Your task to perform on an android device: snooze an email in the gmail app Image 0: 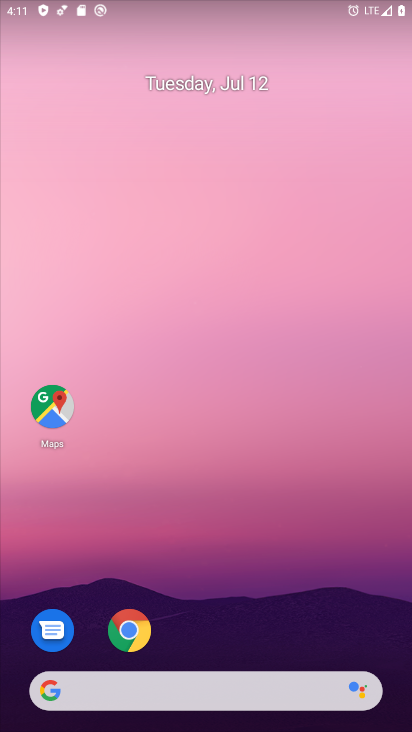
Step 0: click (207, 93)
Your task to perform on an android device: snooze an email in the gmail app Image 1: 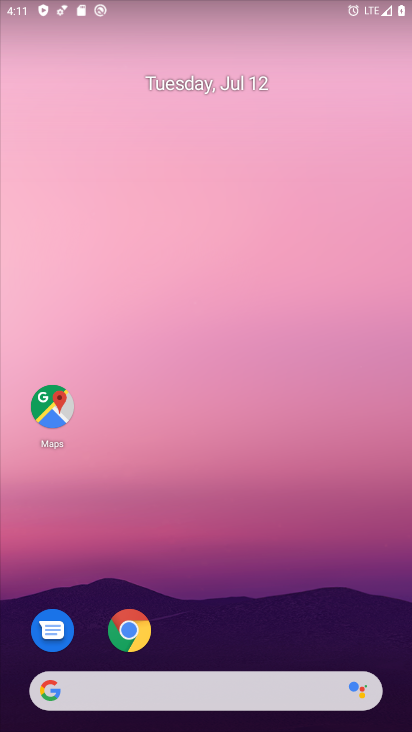
Step 1: drag from (258, 652) to (199, 38)
Your task to perform on an android device: snooze an email in the gmail app Image 2: 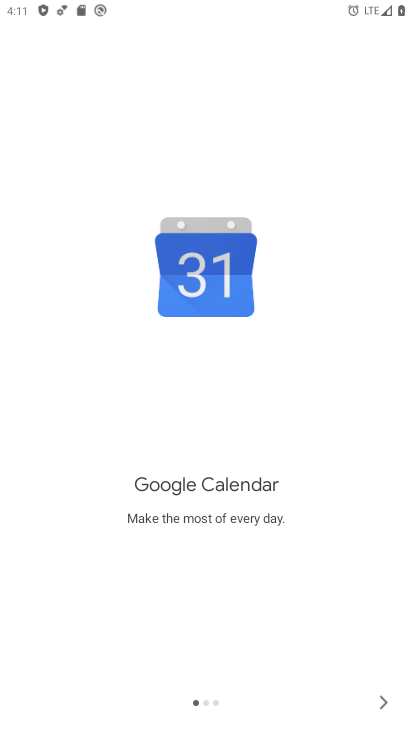
Step 2: click (383, 691)
Your task to perform on an android device: snooze an email in the gmail app Image 3: 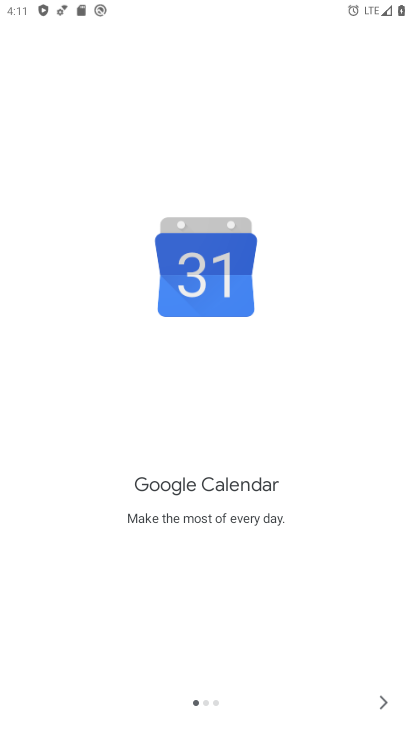
Step 3: click (383, 691)
Your task to perform on an android device: snooze an email in the gmail app Image 4: 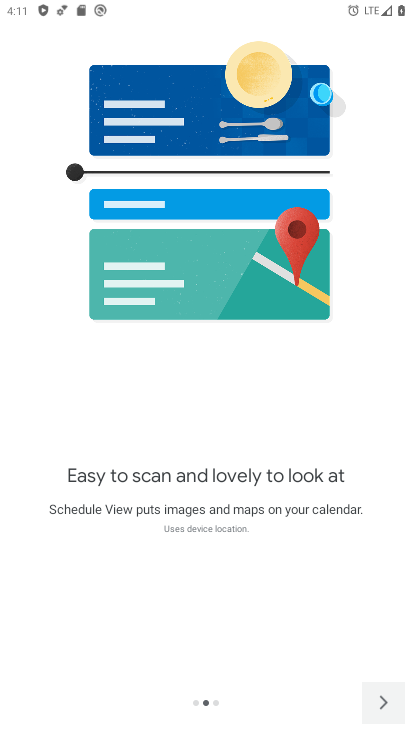
Step 4: click (383, 691)
Your task to perform on an android device: snooze an email in the gmail app Image 5: 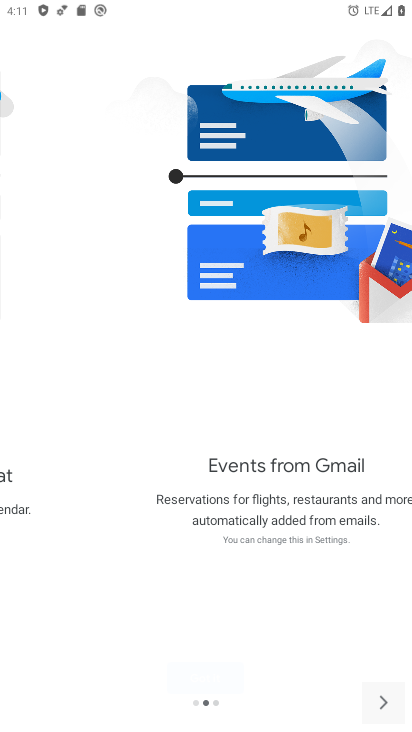
Step 5: click (383, 691)
Your task to perform on an android device: snooze an email in the gmail app Image 6: 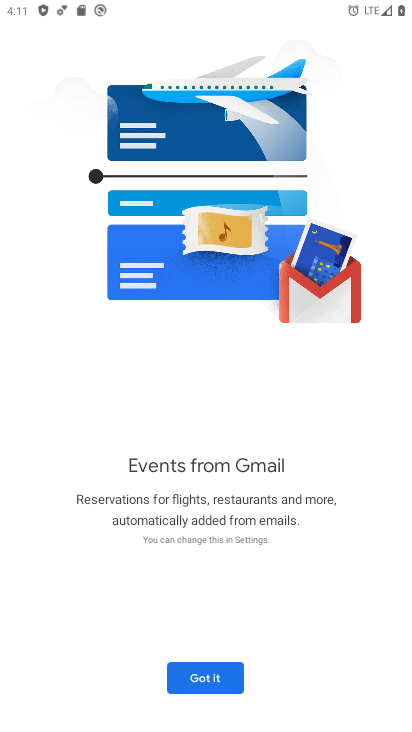
Step 6: click (204, 677)
Your task to perform on an android device: snooze an email in the gmail app Image 7: 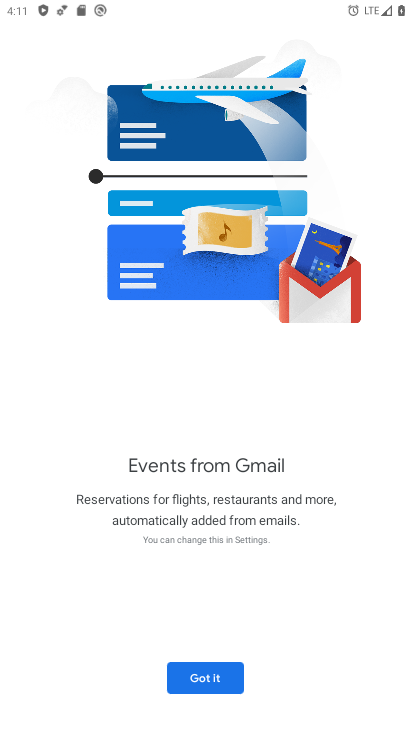
Step 7: click (204, 676)
Your task to perform on an android device: snooze an email in the gmail app Image 8: 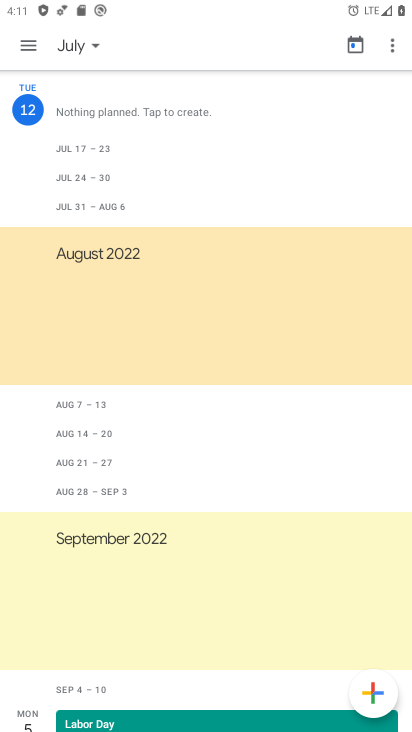
Step 8: press back button
Your task to perform on an android device: snooze an email in the gmail app Image 9: 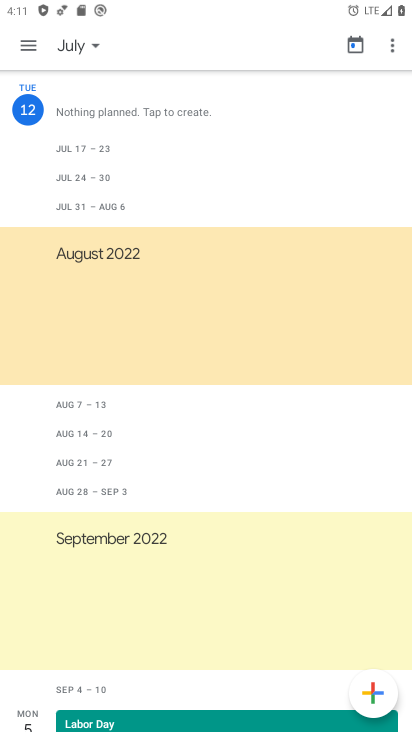
Step 9: press back button
Your task to perform on an android device: snooze an email in the gmail app Image 10: 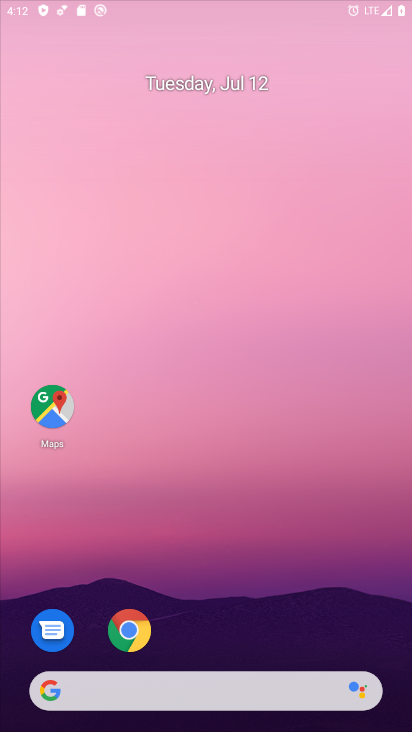
Step 10: press back button
Your task to perform on an android device: snooze an email in the gmail app Image 11: 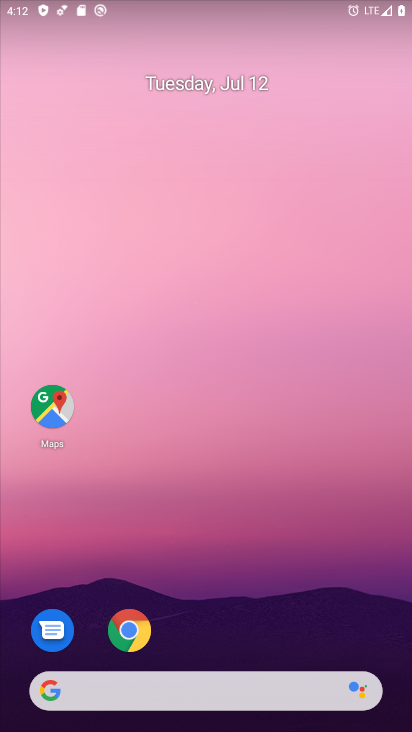
Step 11: drag from (241, 690) to (228, 190)
Your task to perform on an android device: snooze an email in the gmail app Image 12: 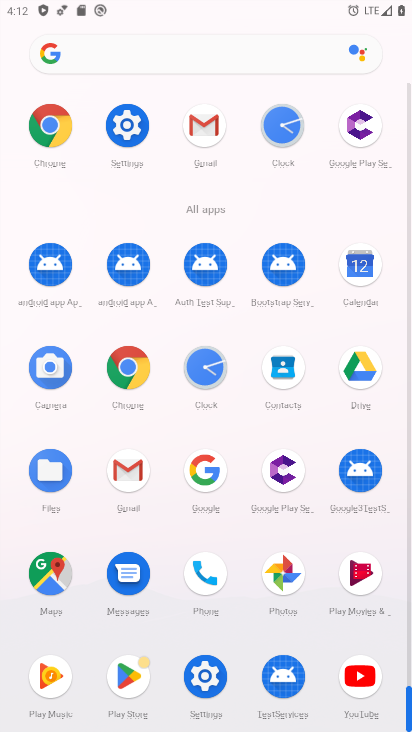
Step 12: click (125, 468)
Your task to perform on an android device: snooze an email in the gmail app Image 13: 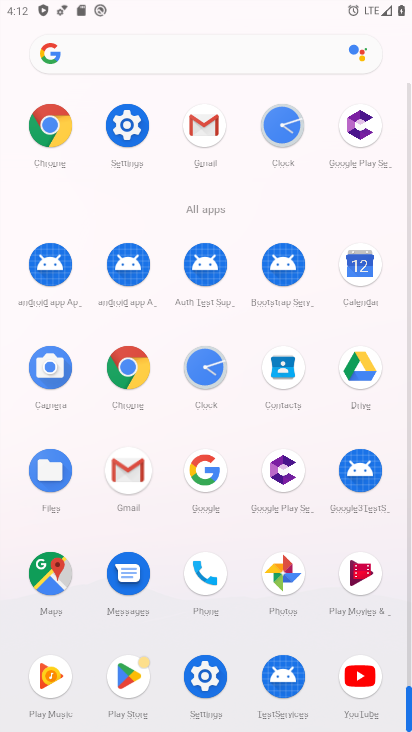
Step 13: click (125, 468)
Your task to perform on an android device: snooze an email in the gmail app Image 14: 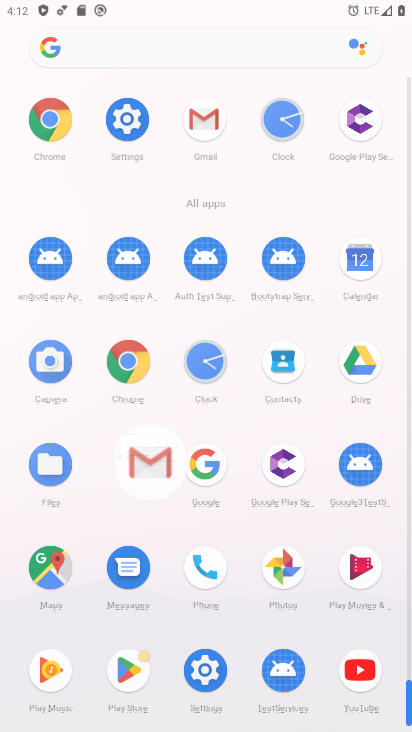
Step 14: click (124, 465)
Your task to perform on an android device: snooze an email in the gmail app Image 15: 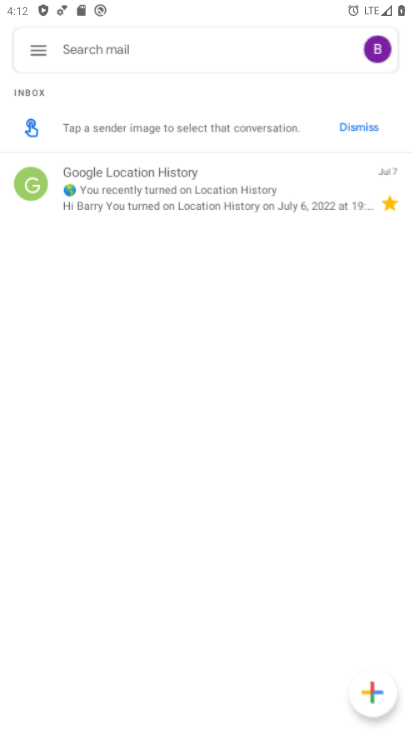
Step 15: click (125, 465)
Your task to perform on an android device: snooze an email in the gmail app Image 16: 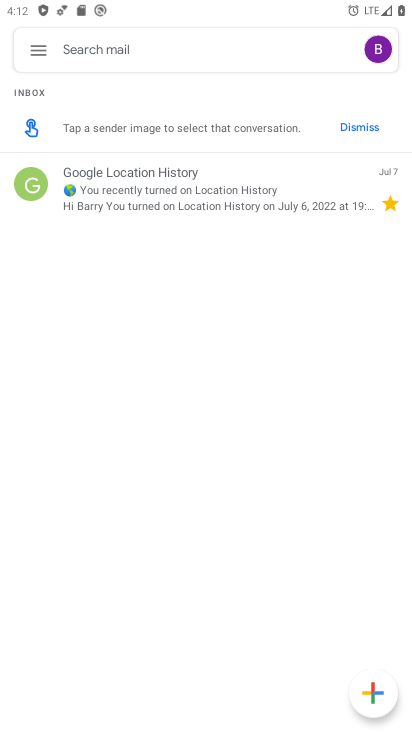
Step 16: click (186, 195)
Your task to perform on an android device: snooze an email in the gmail app Image 17: 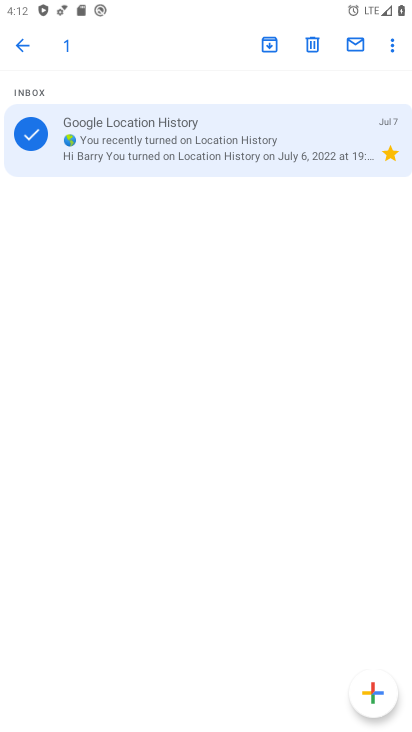
Step 17: click (391, 49)
Your task to perform on an android device: snooze an email in the gmail app Image 18: 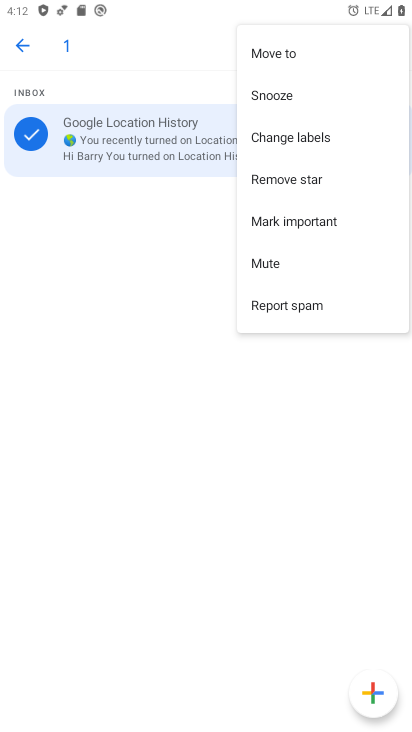
Step 18: click (266, 102)
Your task to perform on an android device: snooze an email in the gmail app Image 19: 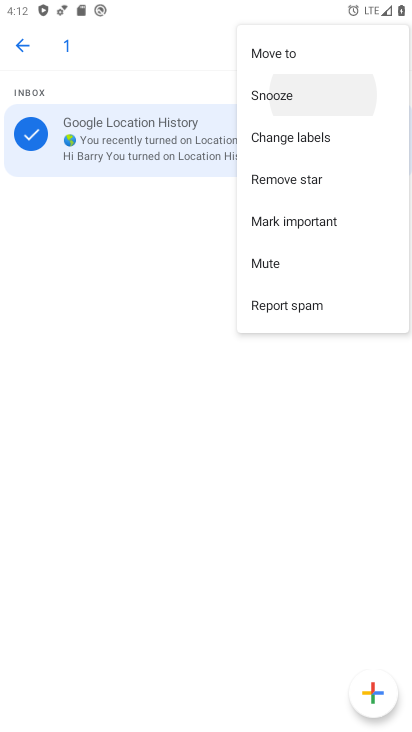
Step 19: click (266, 102)
Your task to perform on an android device: snooze an email in the gmail app Image 20: 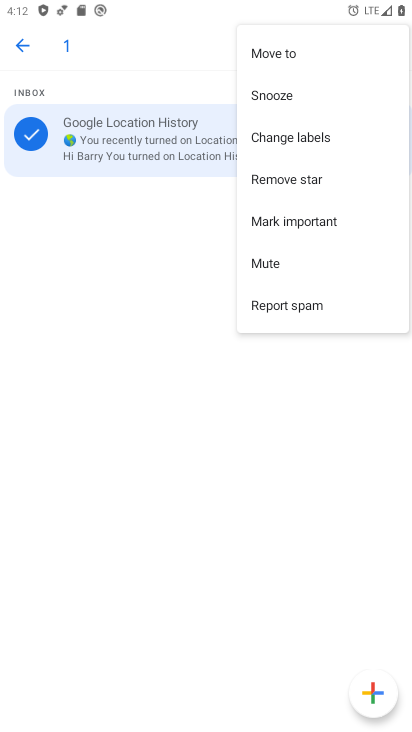
Step 20: click (266, 102)
Your task to perform on an android device: snooze an email in the gmail app Image 21: 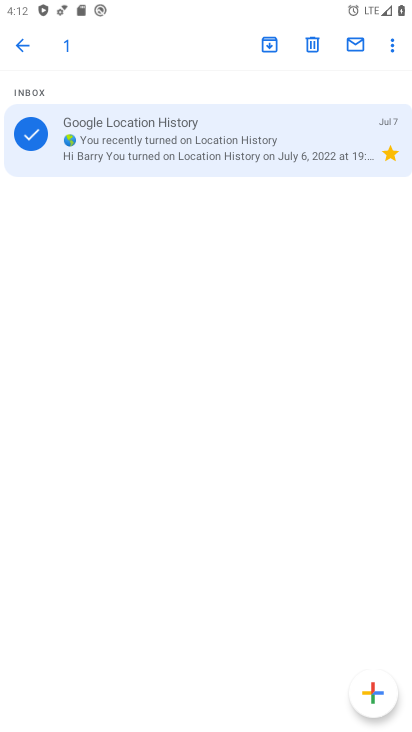
Step 21: click (386, 44)
Your task to perform on an android device: snooze an email in the gmail app Image 22: 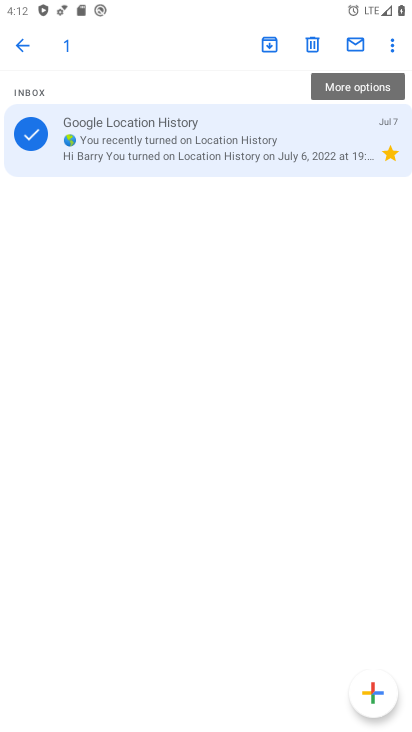
Step 22: click (389, 41)
Your task to perform on an android device: snooze an email in the gmail app Image 23: 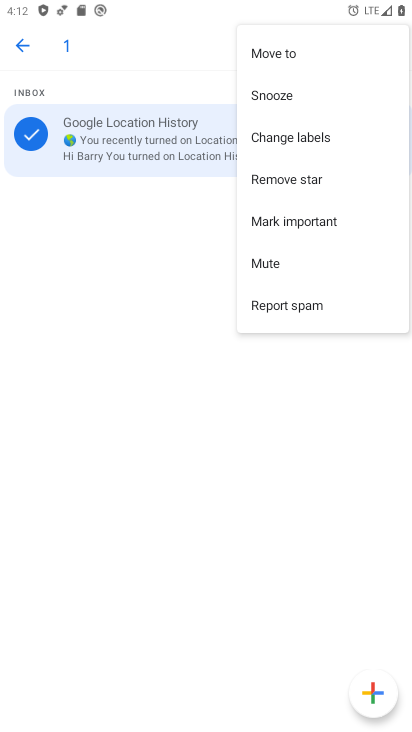
Step 23: click (282, 85)
Your task to perform on an android device: snooze an email in the gmail app Image 24: 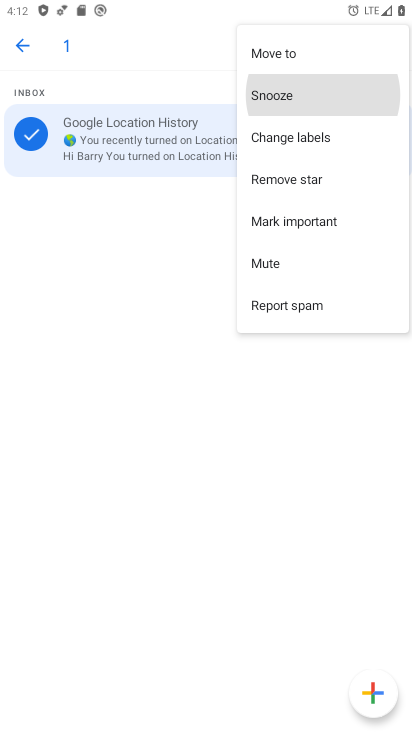
Step 24: click (278, 97)
Your task to perform on an android device: snooze an email in the gmail app Image 25: 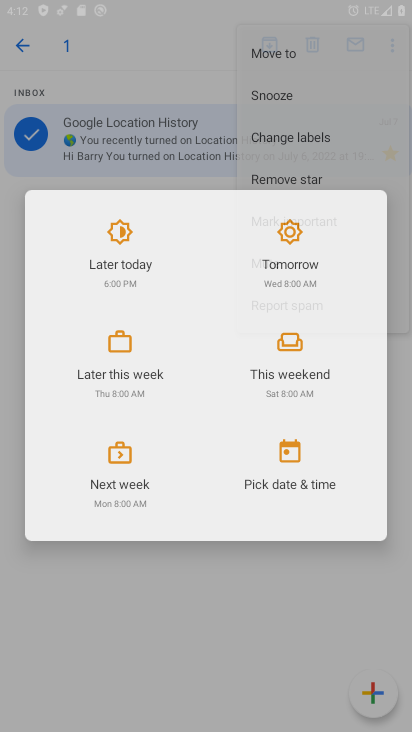
Step 25: click (278, 95)
Your task to perform on an android device: snooze an email in the gmail app Image 26: 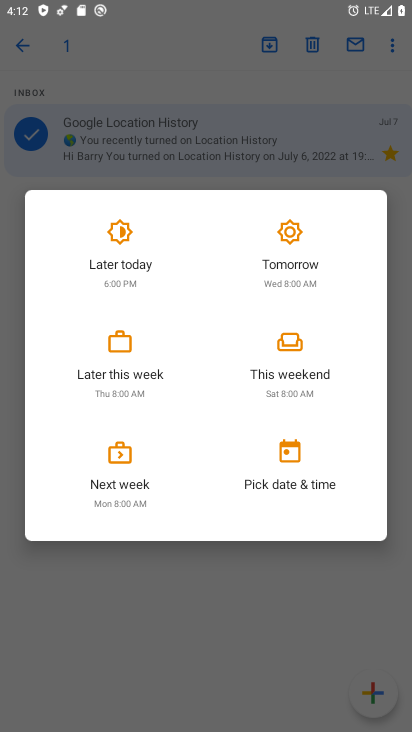
Step 26: click (279, 94)
Your task to perform on an android device: snooze an email in the gmail app Image 27: 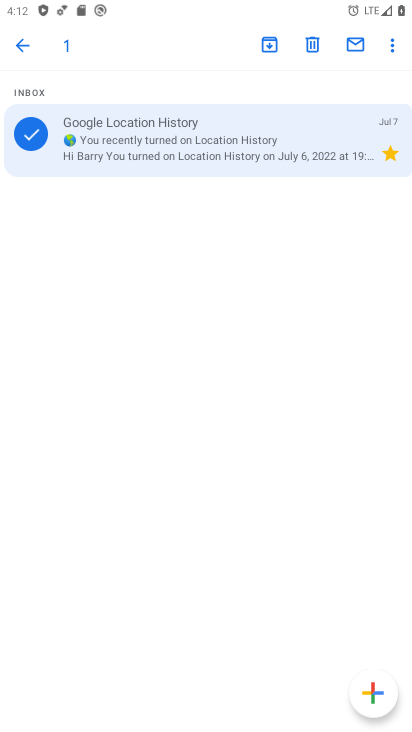
Step 27: click (389, 42)
Your task to perform on an android device: snooze an email in the gmail app Image 28: 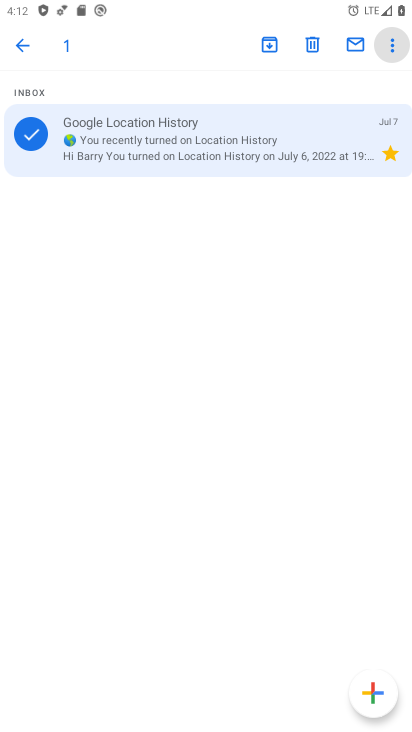
Step 28: click (393, 45)
Your task to perform on an android device: snooze an email in the gmail app Image 29: 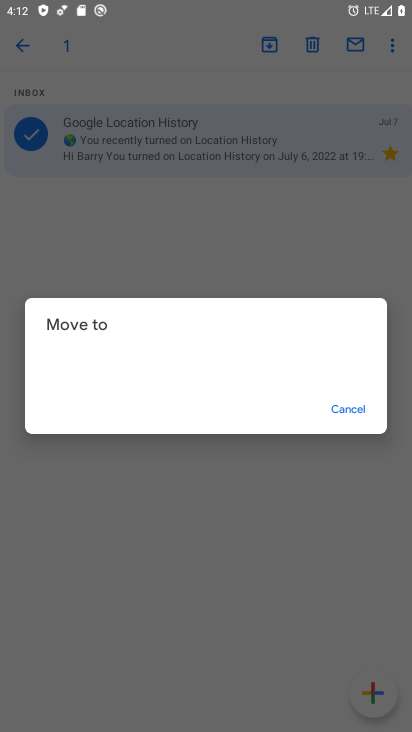
Step 29: click (305, 227)
Your task to perform on an android device: snooze an email in the gmail app Image 30: 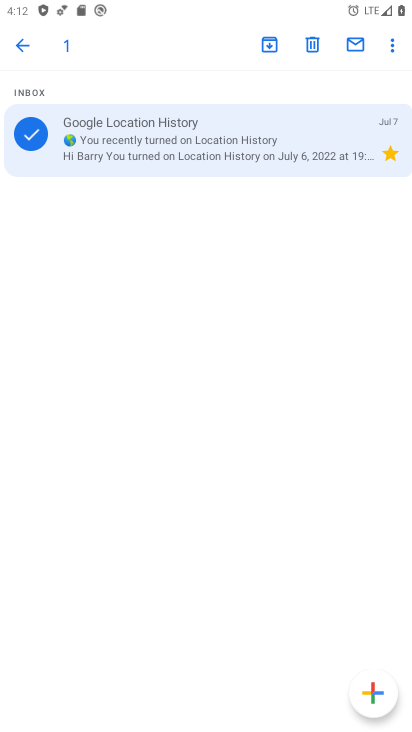
Step 30: task complete